Your task to perform on an android device: View the shopping cart on walmart.com. Image 0: 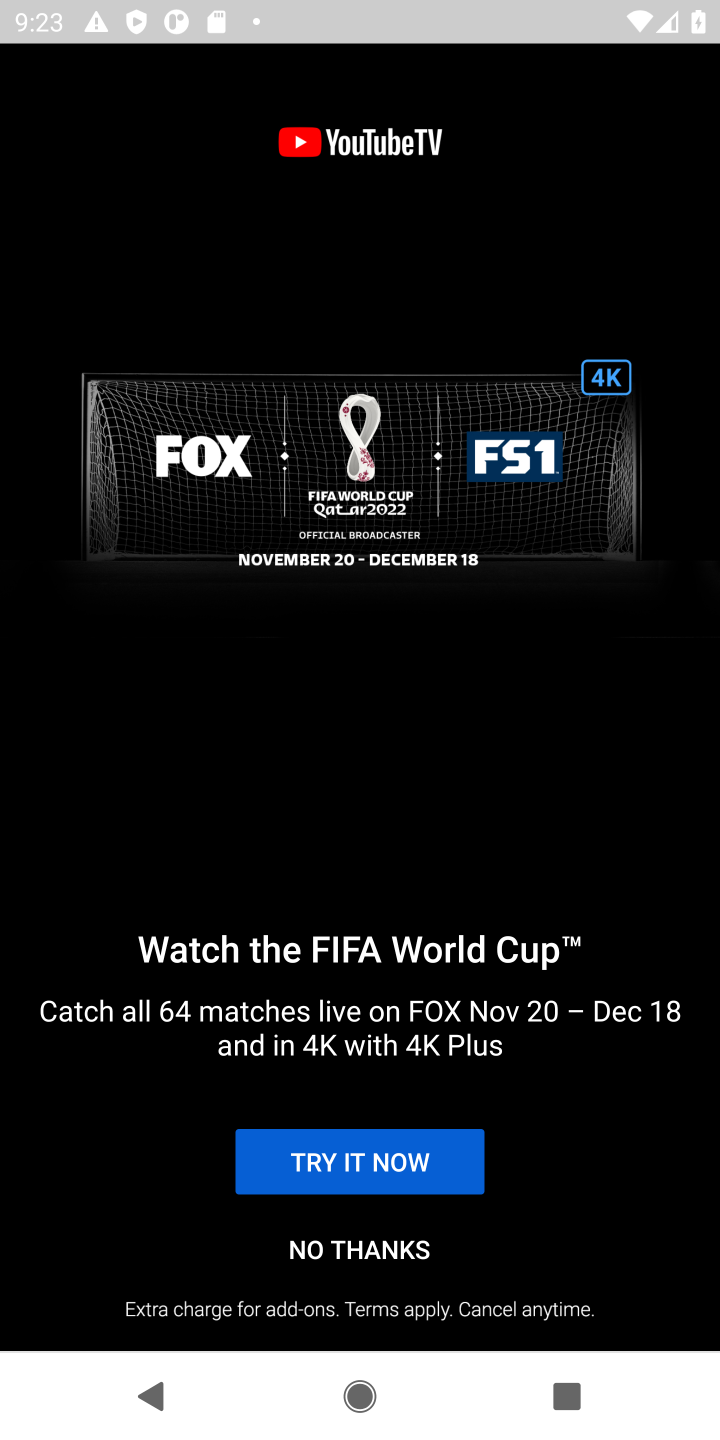
Step 0: press home button
Your task to perform on an android device: View the shopping cart on walmart.com. Image 1: 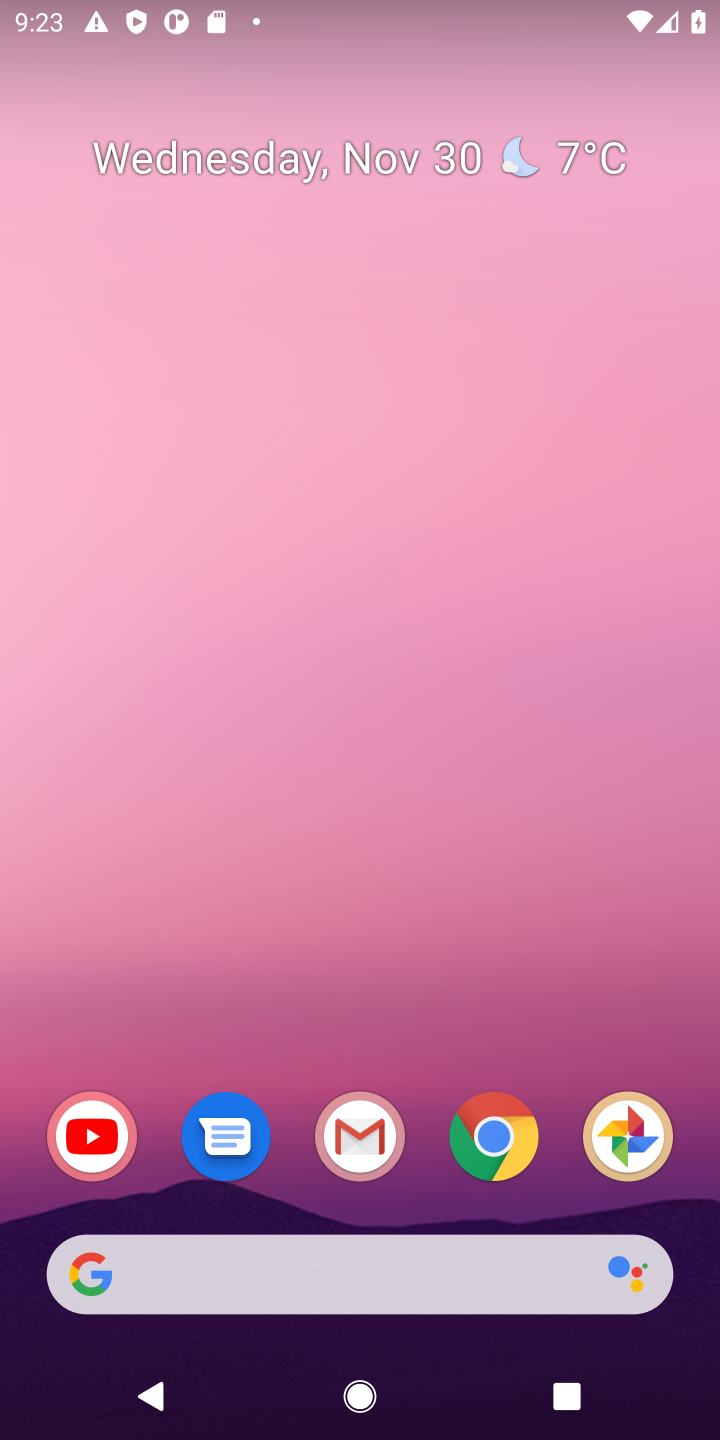
Step 1: click (493, 1123)
Your task to perform on an android device: View the shopping cart on walmart.com. Image 2: 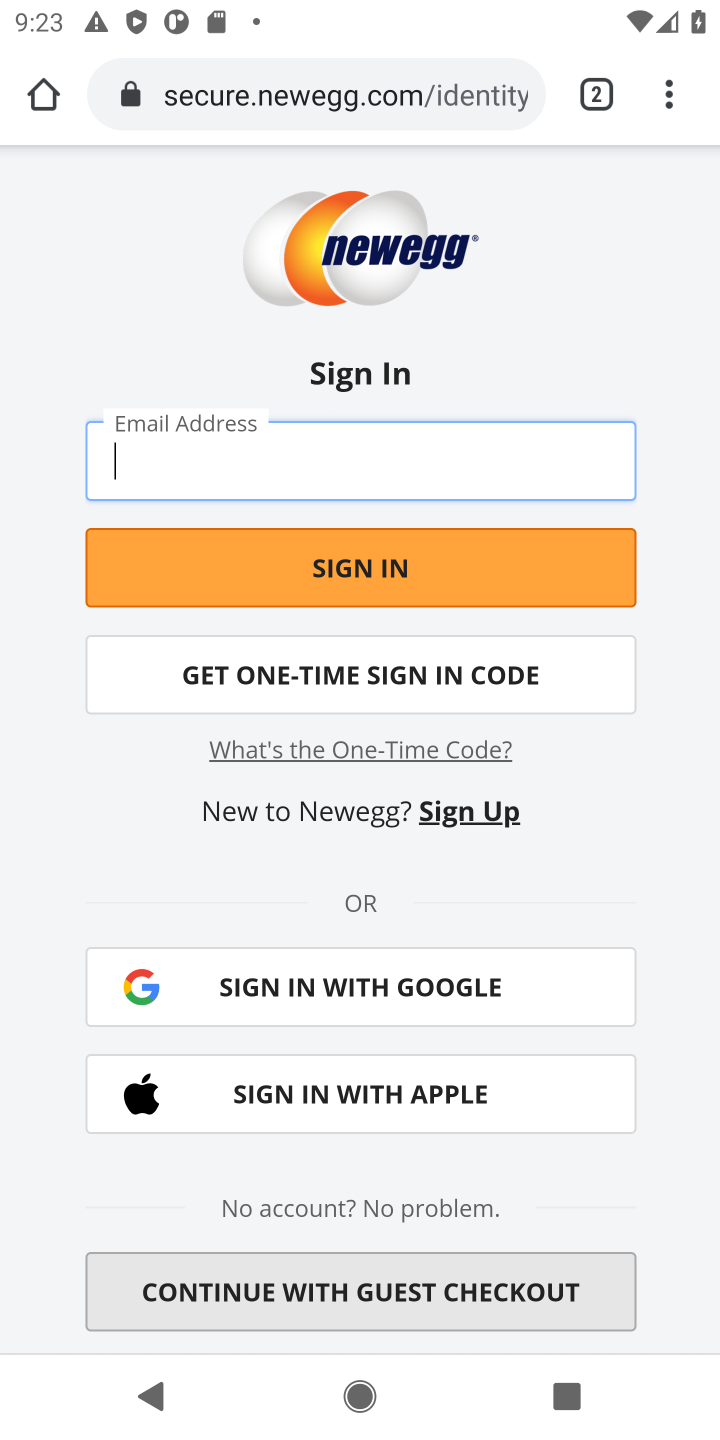
Step 2: click (296, 103)
Your task to perform on an android device: View the shopping cart on walmart.com. Image 3: 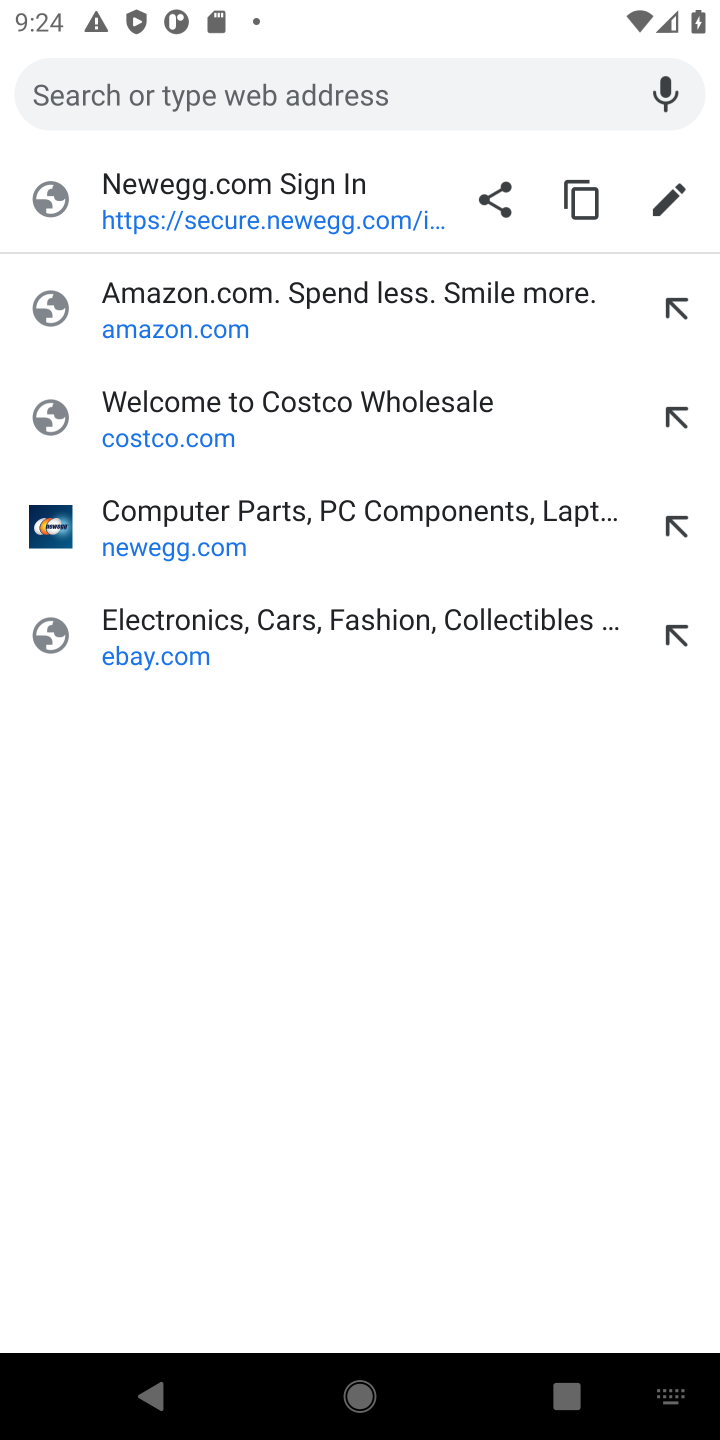
Step 3: type "walmart.com"
Your task to perform on an android device: View the shopping cart on walmart.com. Image 4: 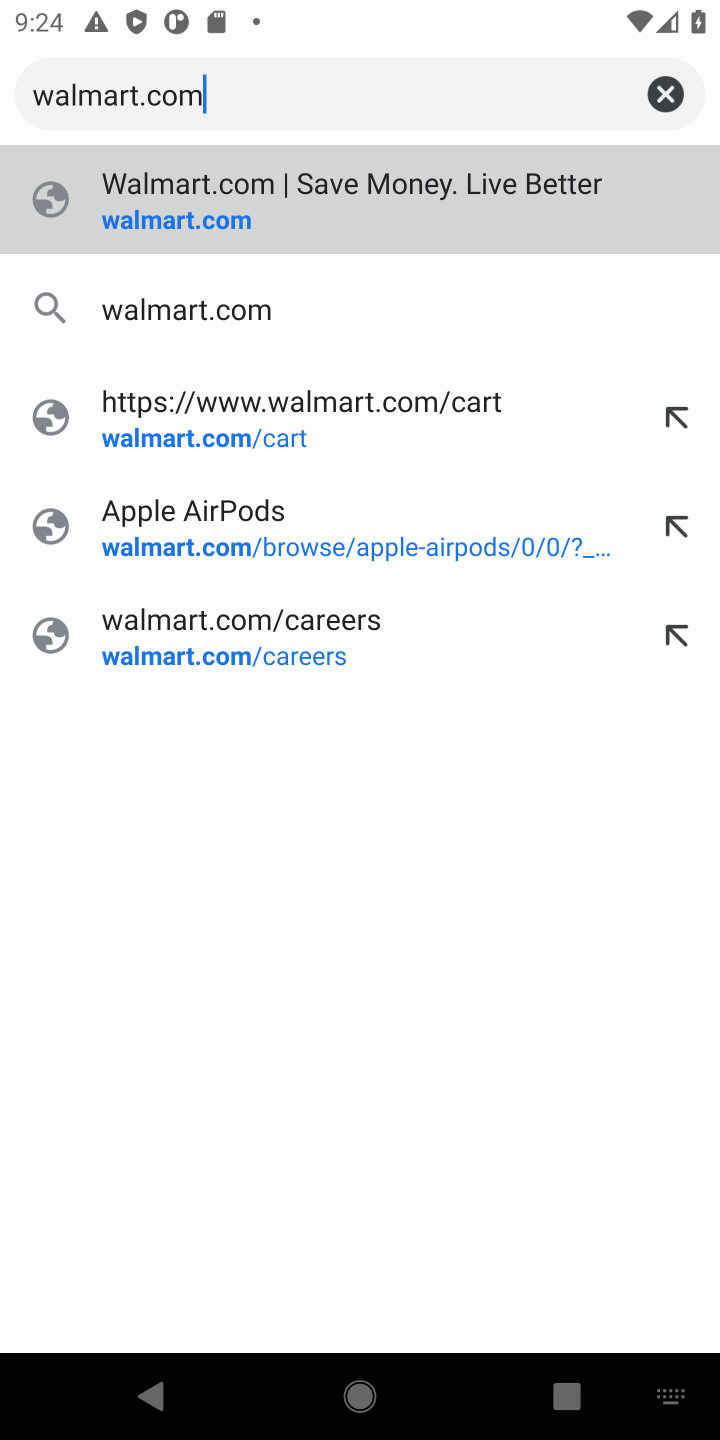
Step 4: click (197, 222)
Your task to perform on an android device: View the shopping cart on walmart.com. Image 5: 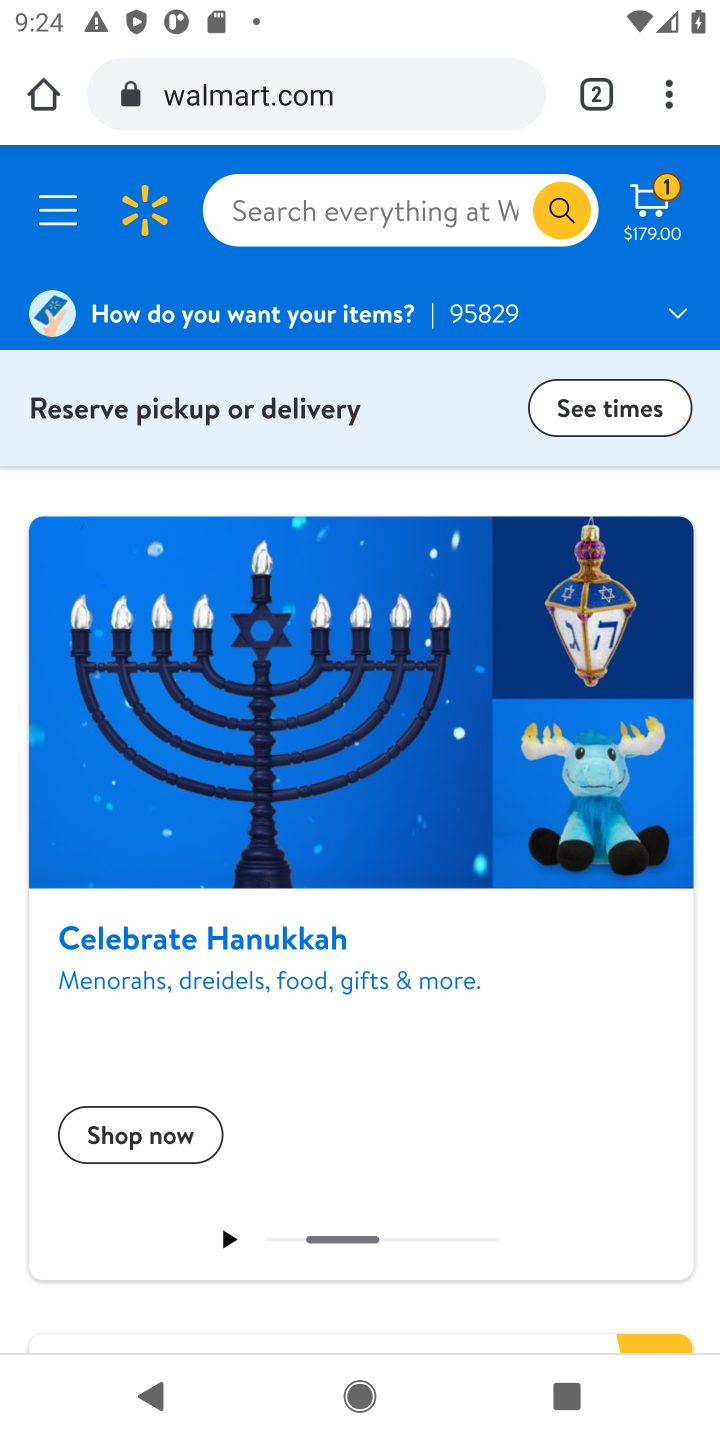
Step 5: click (648, 207)
Your task to perform on an android device: View the shopping cart on walmart.com. Image 6: 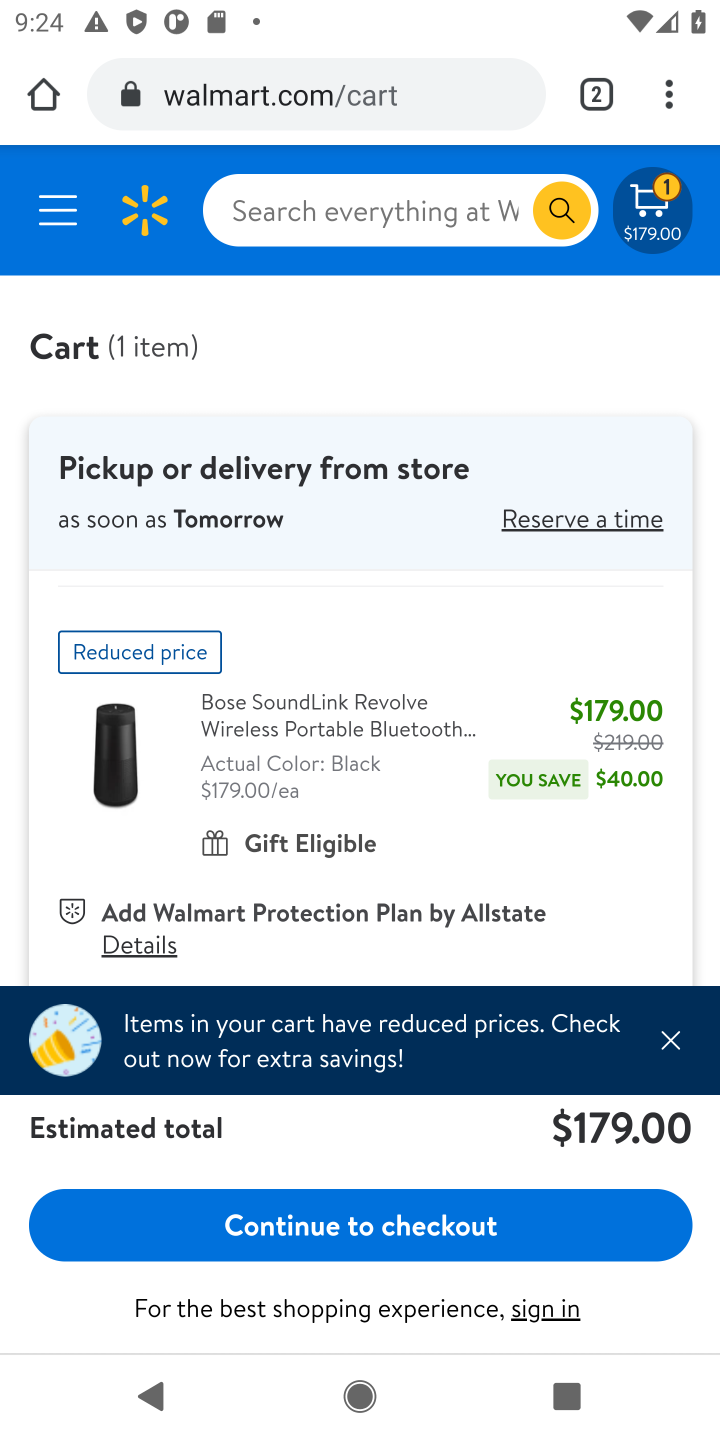
Step 6: task complete